Your task to perform on an android device: change notification settings in the gmail app Image 0: 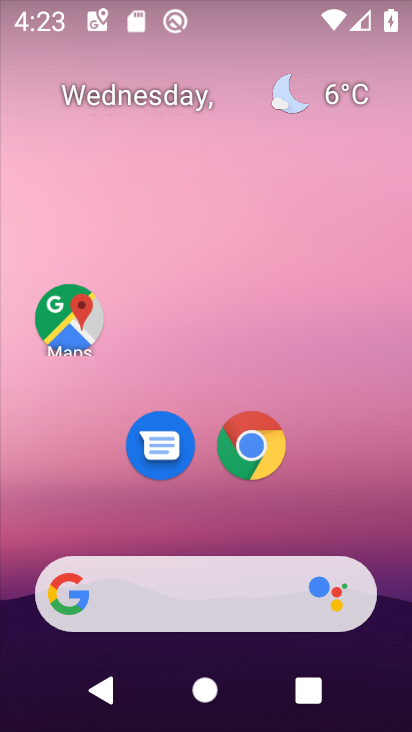
Step 0: drag from (238, 528) to (247, 2)
Your task to perform on an android device: change notification settings in the gmail app Image 1: 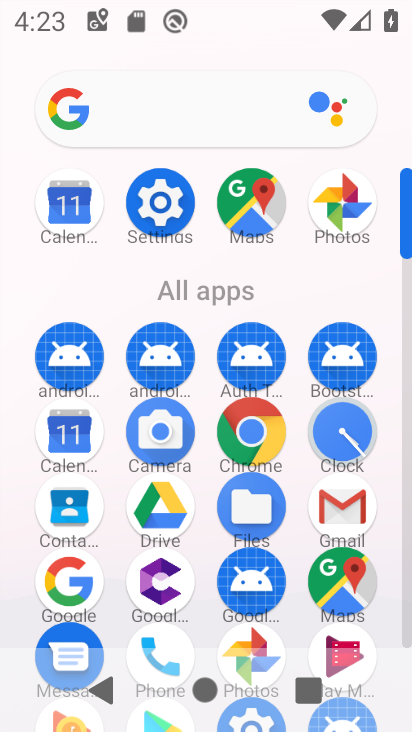
Step 1: click (340, 507)
Your task to perform on an android device: change notification settings in the gmail app Image 2: 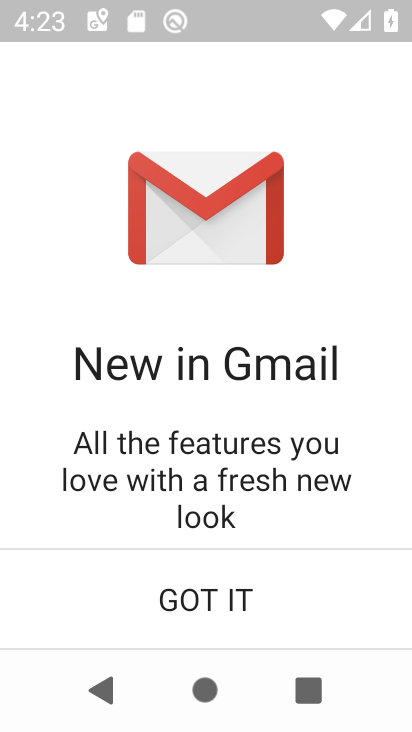
Step 2: click (217, 584)
Your task to perform on an android device: change notification settings in the gmail app Image 3: 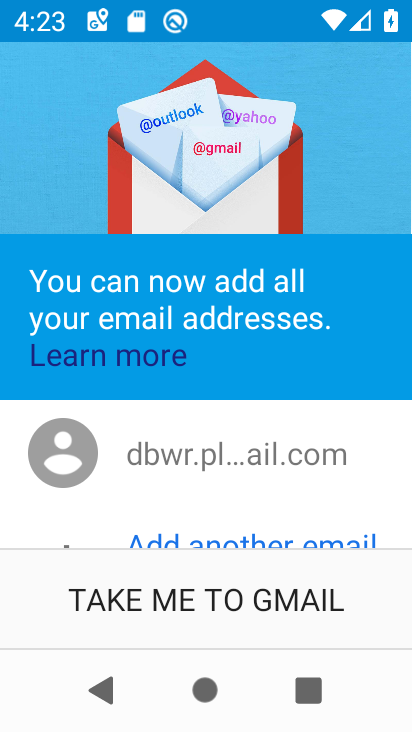
Step 3: click (234, 604)
Your task to perform on an android device: change notification settings in the gmail app Image 4: 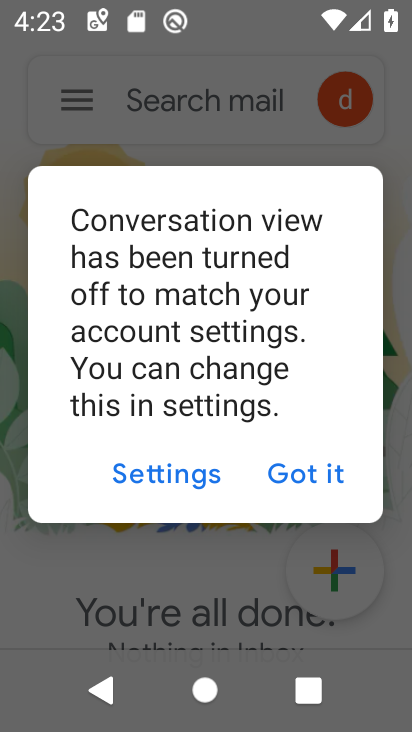
Step 4: click (190, 473)
Your task to perform on an android device: change notification settings in the gmail app Image 5: 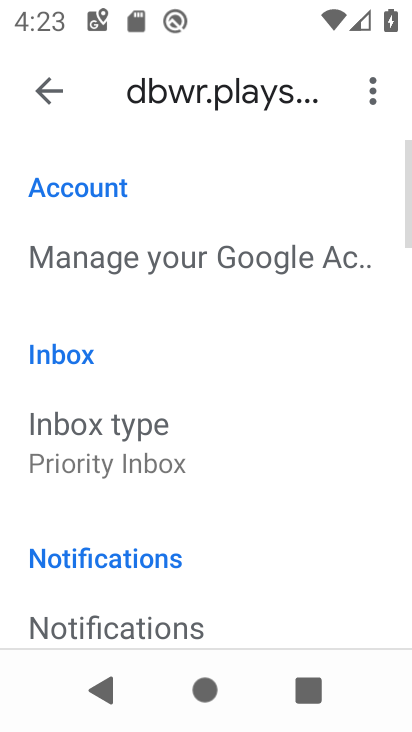
Step 5: click (44, 97)
Your task to perform on an android device: change notification settings in the gmail app Image 6: 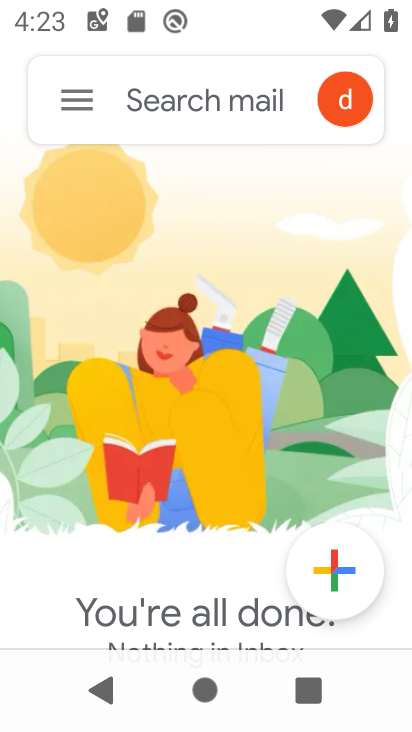
Step 6: click (78, 102)
Your task to perform on an android device: change notification settings in the gmail app Image 7: 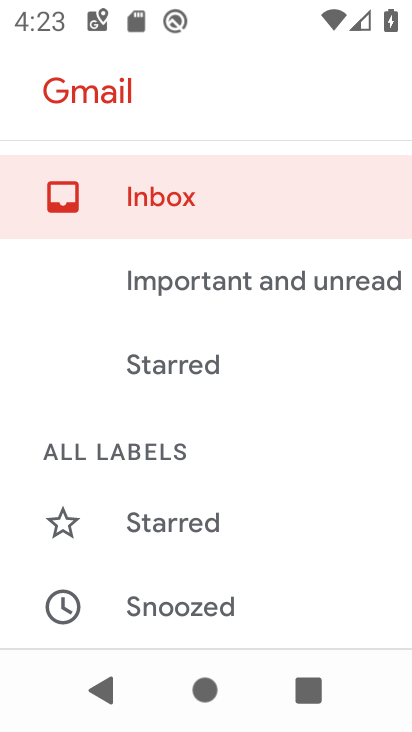
Step 7: drag from (143, 580) to (237, 30)
Your task to perform on an android device: change notification settings in the gmail app Image 8: 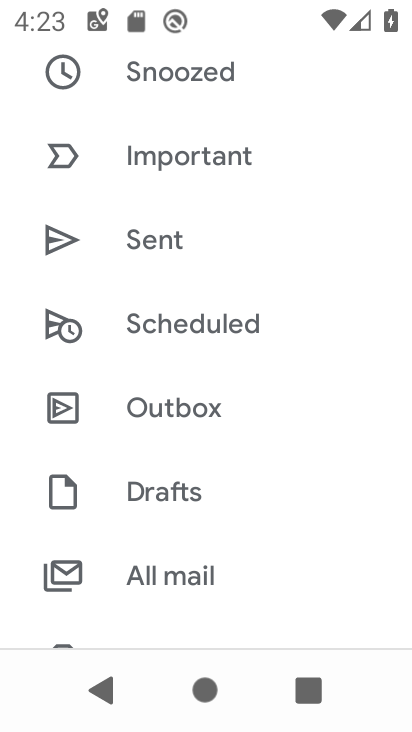
Step 8: drag from (187, 489) to (226, 15)
Your task to perform on an android device: change notification settings in the gmail app Image 9: 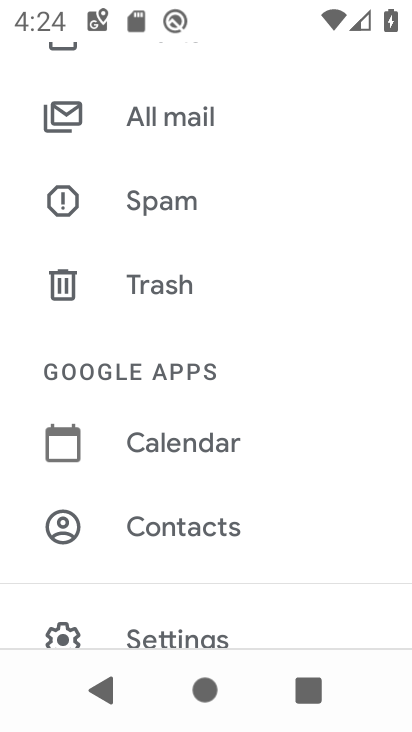
Step 9: drag from (174, 569) to (246, 141)
Your task to perform on an android device: change notification settings in the gmail app Image 10: 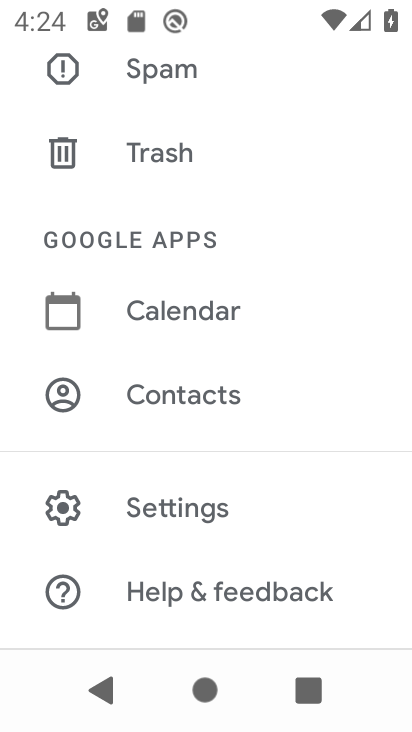
Step 10: click (203, 530)
Your task to perform on an android device: change notification settings in the gmail app Image 11: 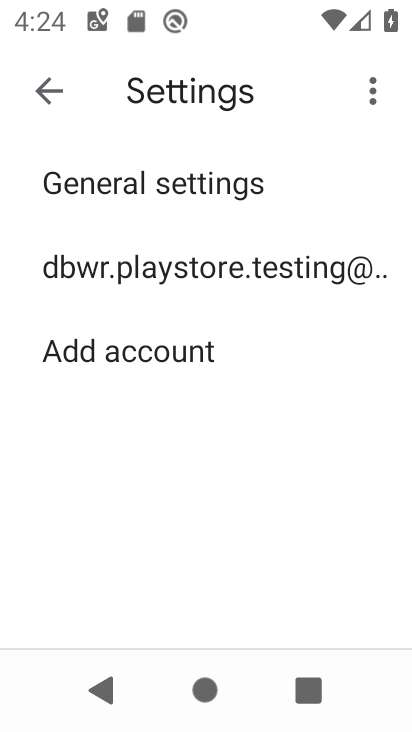
Step 11: click (165, 196)
Your task to perform on an android device: change notification settings in the gmail app Image 12: 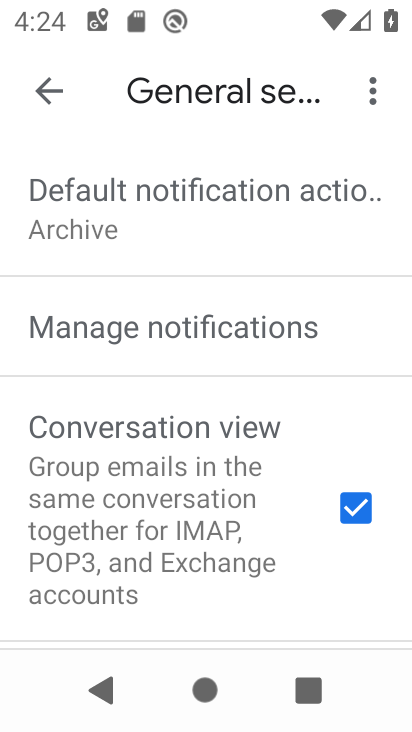
Step 12: click (142, 342)
Your task to perform on an android device: change notification settings in the gmail app Image 13: 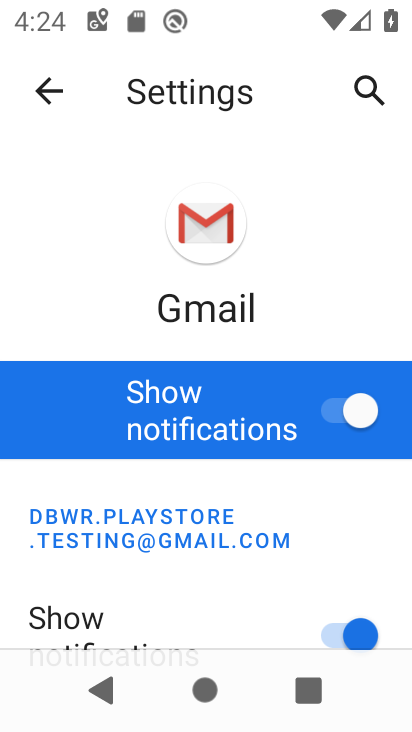
Step 13: click (287, 406)
Your task to perform on an android device: change notification settings in the gmail app Image 14: 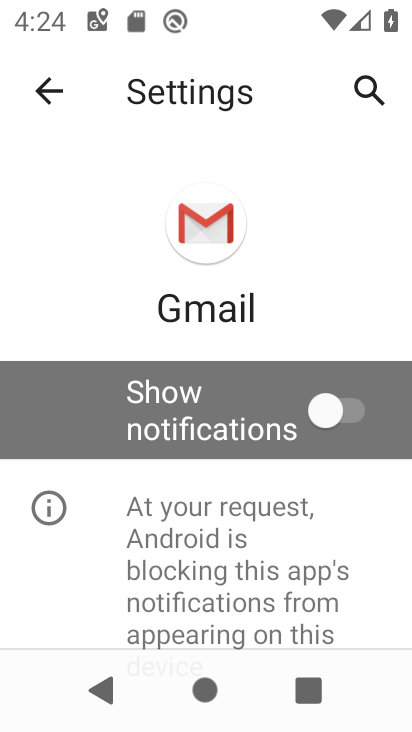
Step 14: task complete